Your task to perform on an android device: turn off wifi Image 0: 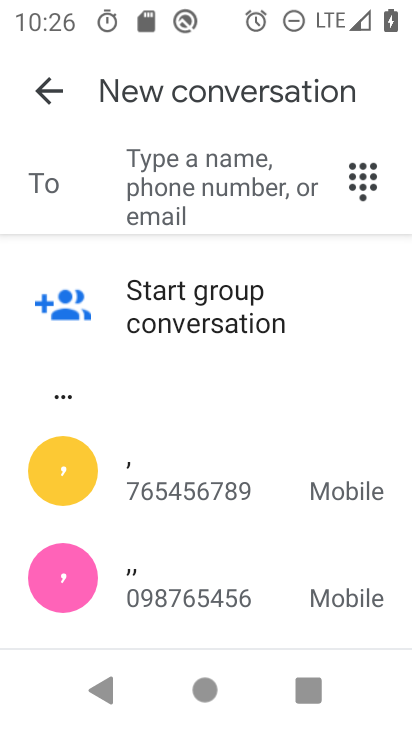
Step 0: press back button
Your task to perform on an android device: turn off wifi Image 1: 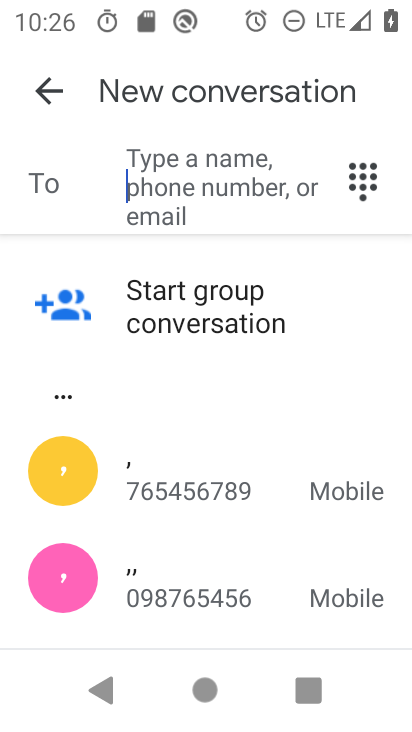
Step 1: press back button
Your task to perform on an android device: turn off wifi Image 2: 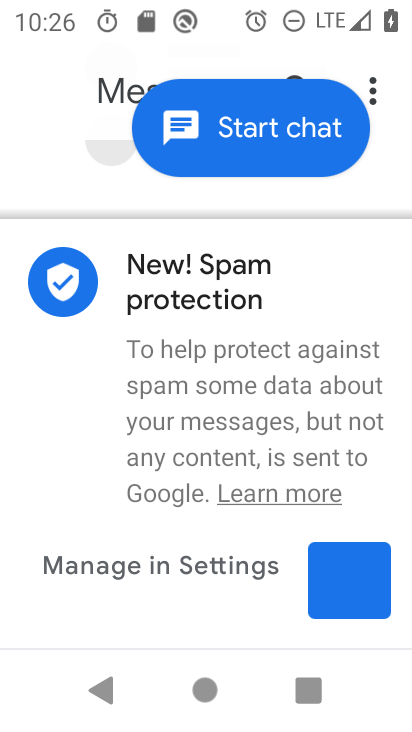
Step 2: press home button
Your task to perform on an android device: turn off wifi Image 3: 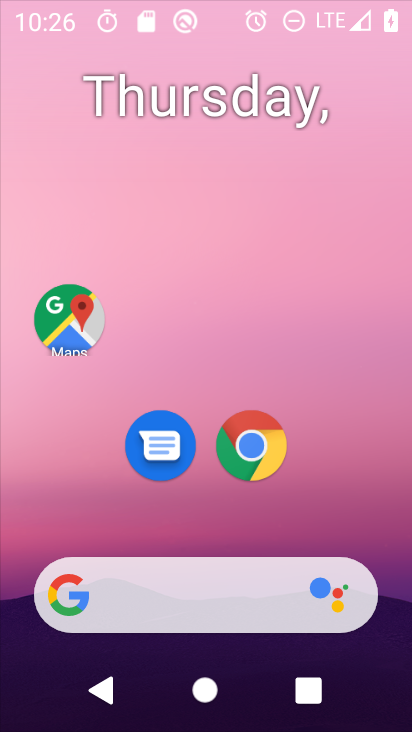
Step 3: press home button
Your task to perform on an android device: turn off wifi Image 4: 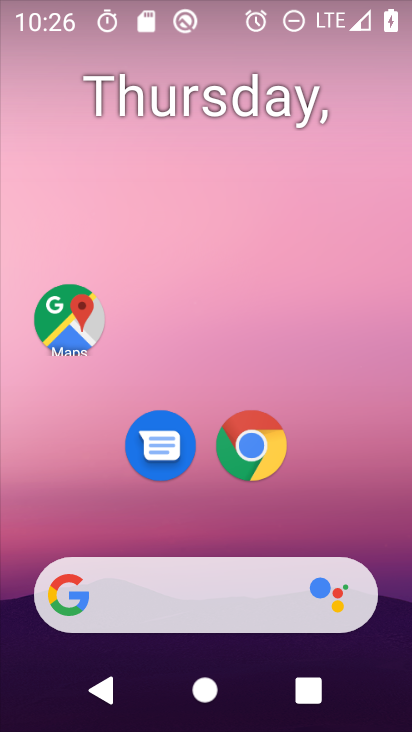
Step 4: drag from (206, 543) to (266, 116)
Your task to perform on an android device: turn off wifi Image 5: 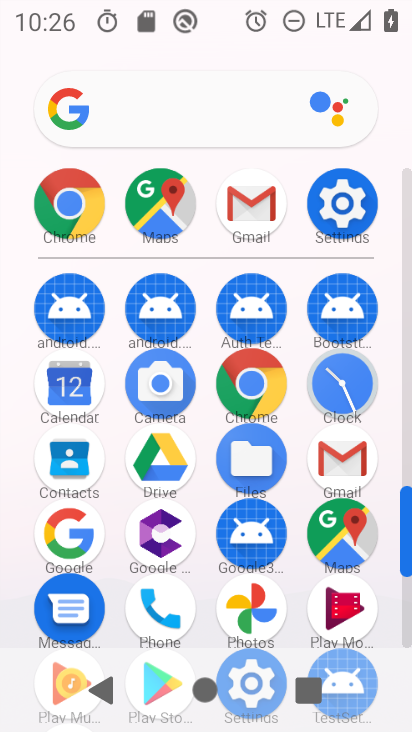
Step 5: click (342, 201)
Your task to perform on an android device: turn off wifi Image 6: 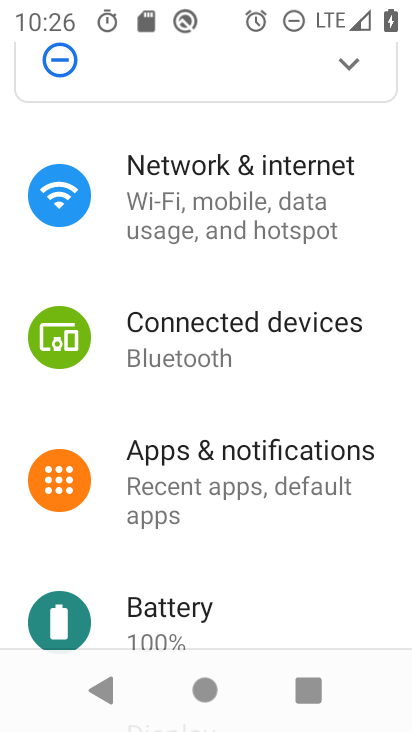
Step 6: click (239, 206)
Your task to perform on an android device: turn off wifi Image 7: 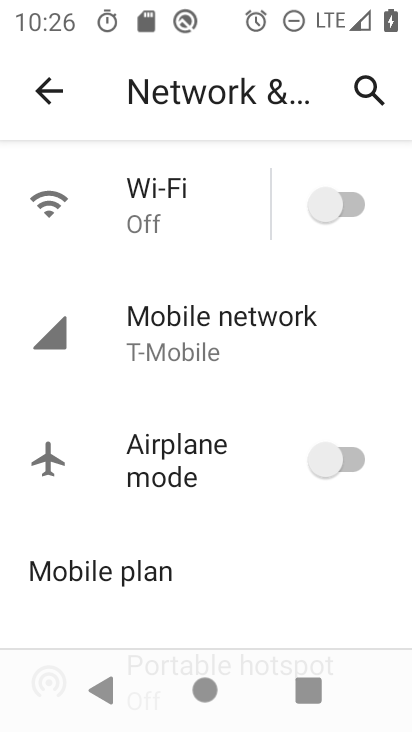
Step 7: click (210, 231)
Your task to perform on an android device: turn off wifi Image 8: 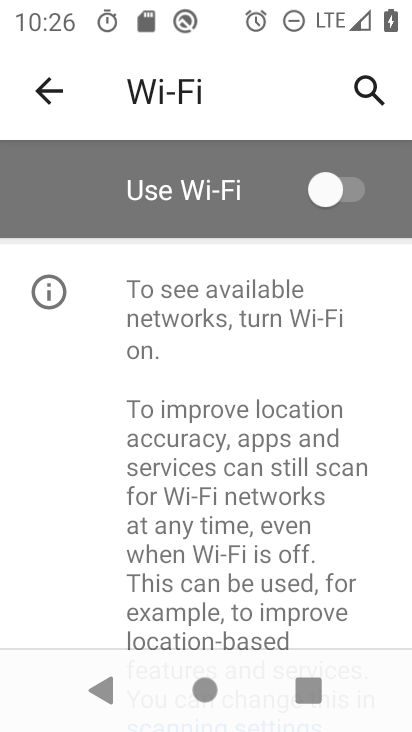
Step 8: task complete